Your task to perform on an android device: turn on data saver in the chrome app Image 0: 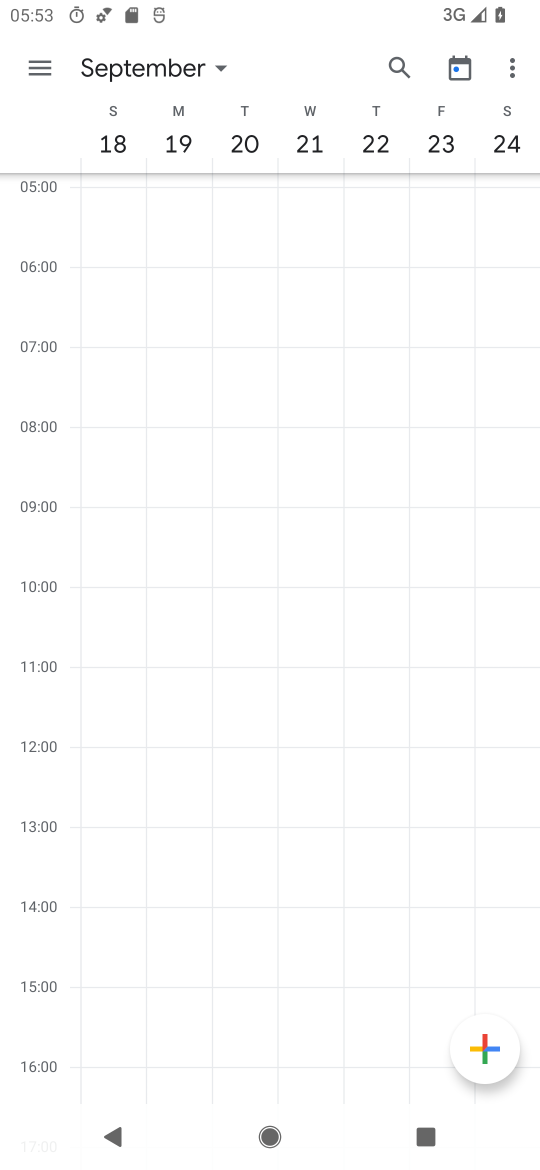
Step 0: press home button
Your task to perform on an android device: turn on data saver in the chrome app Image 1: 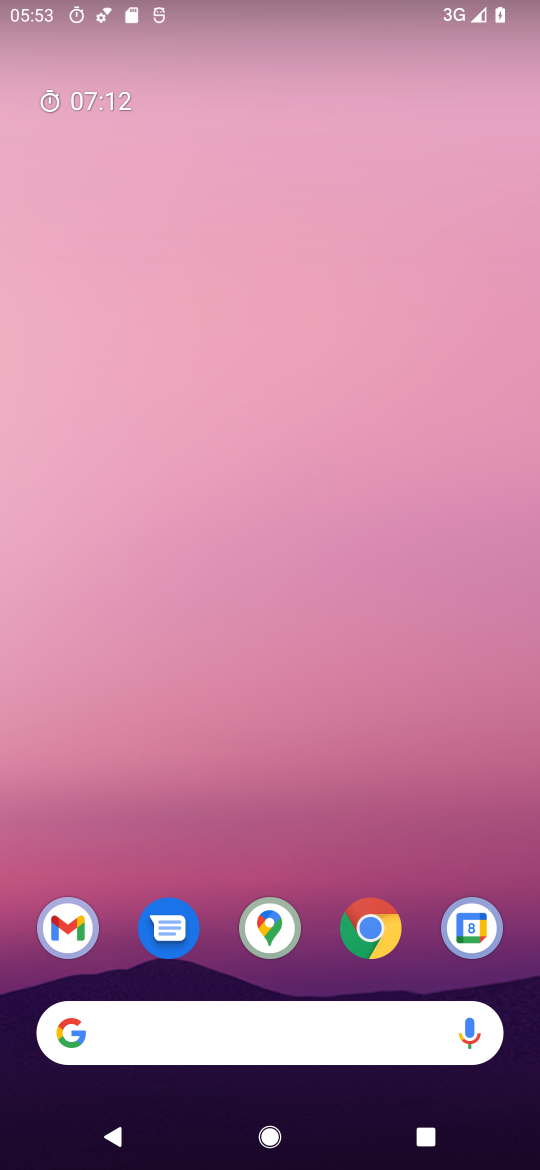
Step 1: click (396, 937)
Your task to perform on an android device: turn on data saver in the chrome app Image 2: 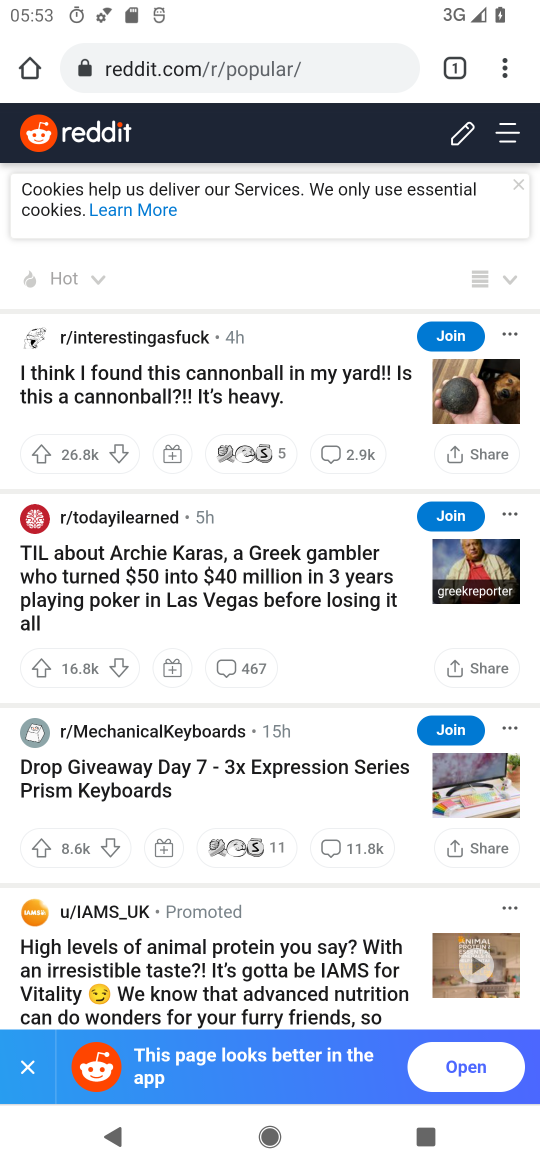
Step 2: click (511, 60)
Your task to perform on an android device: turn on data saver in the chrome app Image 3: 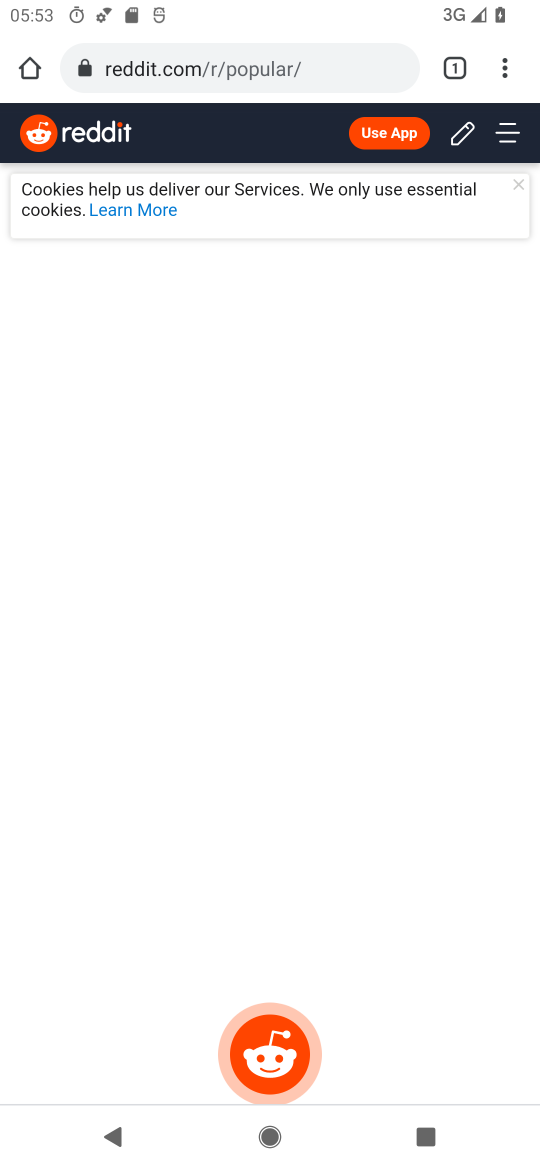
Step 3: click (502, 75)
Your task to perform on an android device: turn on data saver in the chrome app Image 4: 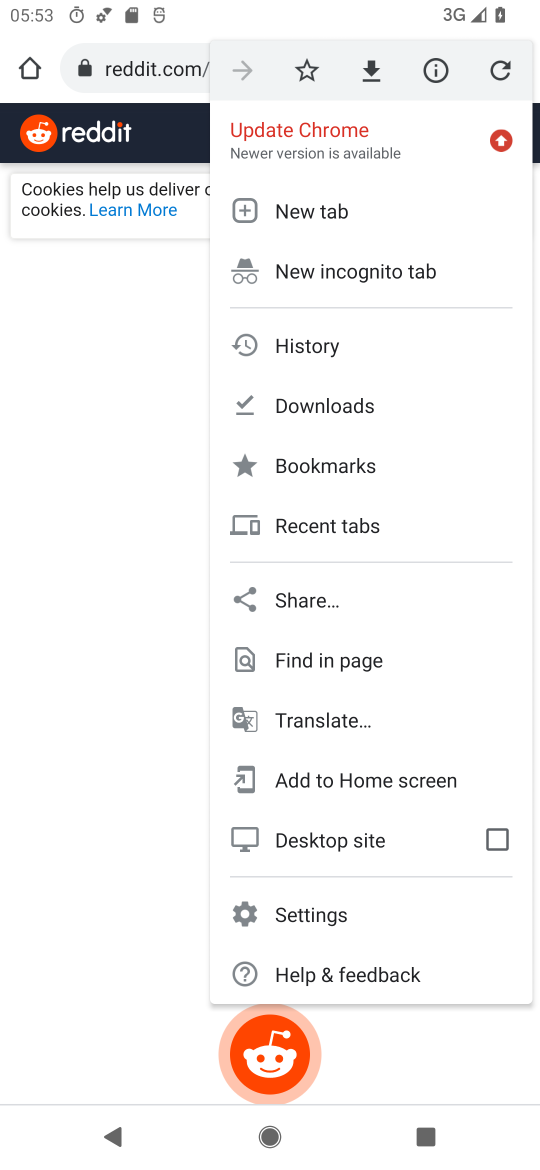
Step 4: click (309, 904)
Your task to perform on an android device: turn on data saver in the chrome app Image 5: 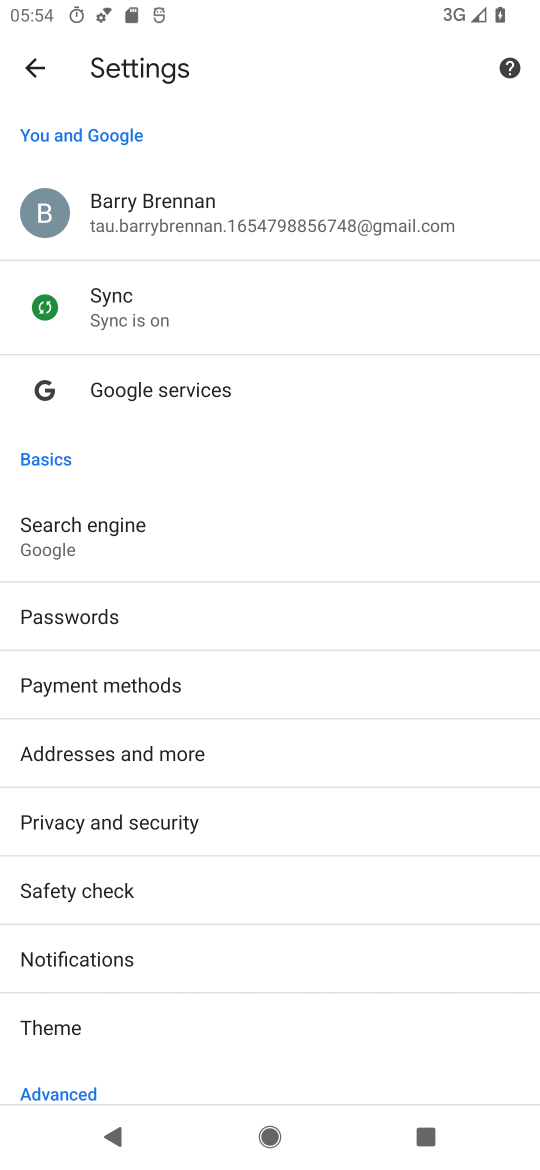
Step 5: drag from (181, 984) to (187, 487)
Your task to perform on an android device: turn on data saver in the chrome app Image 6: 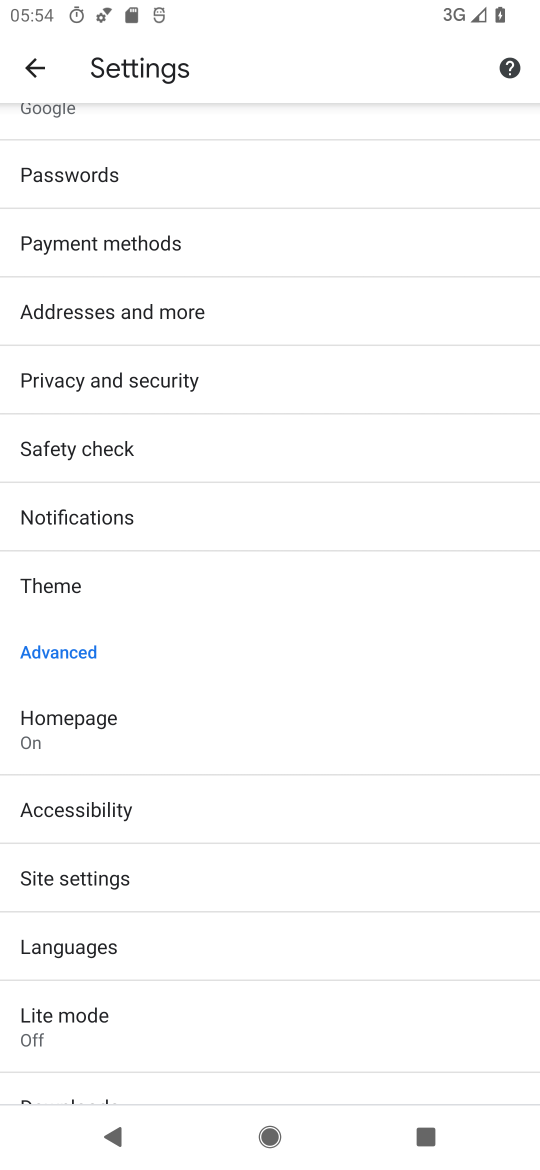
Step 6: click (95, 1030)
Your task to perform on an android device: turn on data saver in the chrome app Image 7: 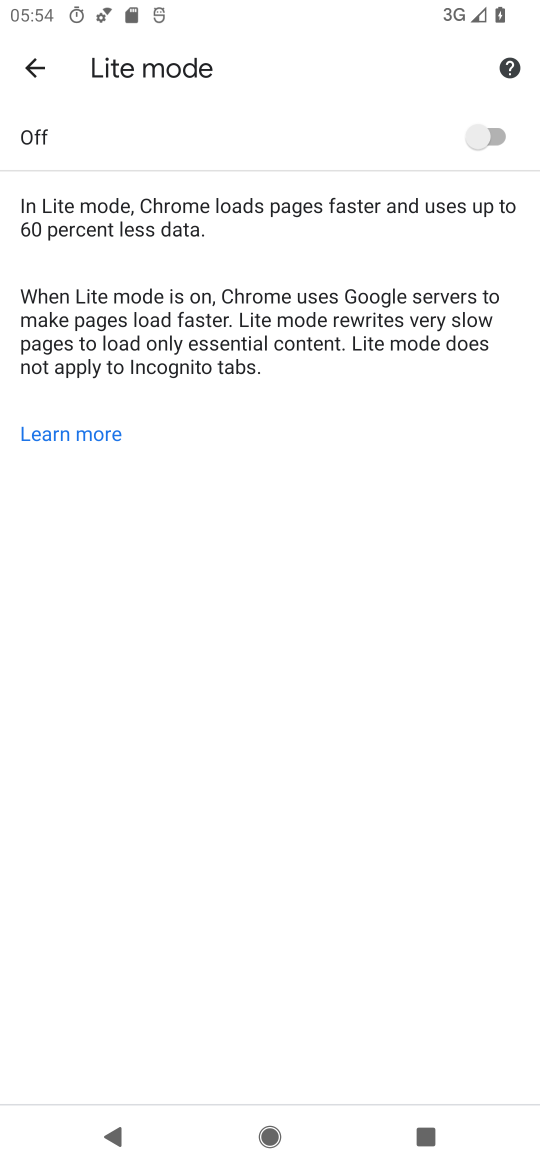
Step 7: click (509, 139)
Your task to perform on an android device: turn on data saver in the chrome app Image 8: 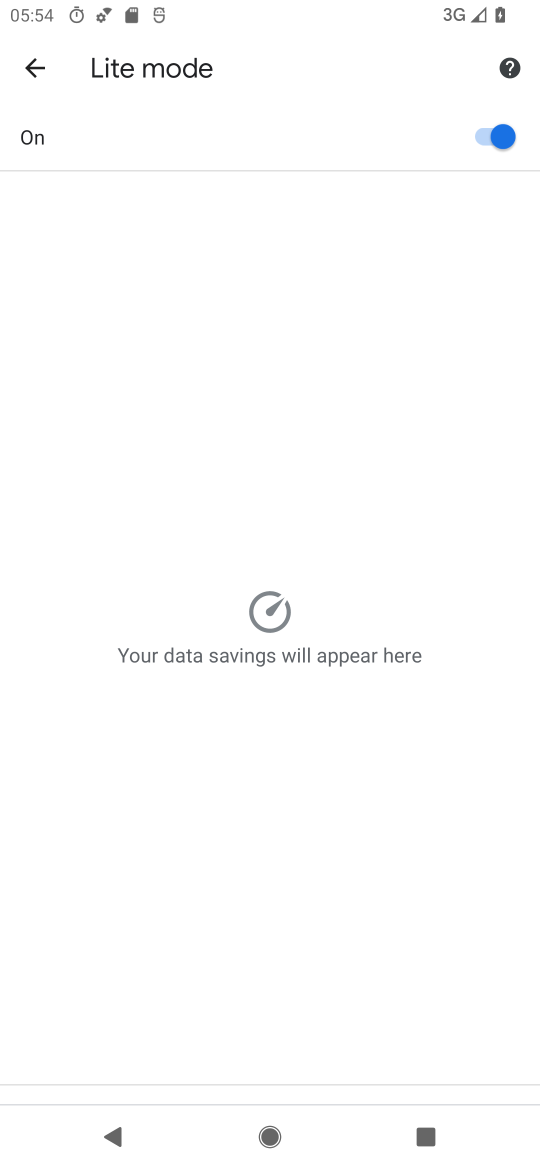
Step 8: task complete